Your task to perform on an android device: find photos in the google photos app Image 0: 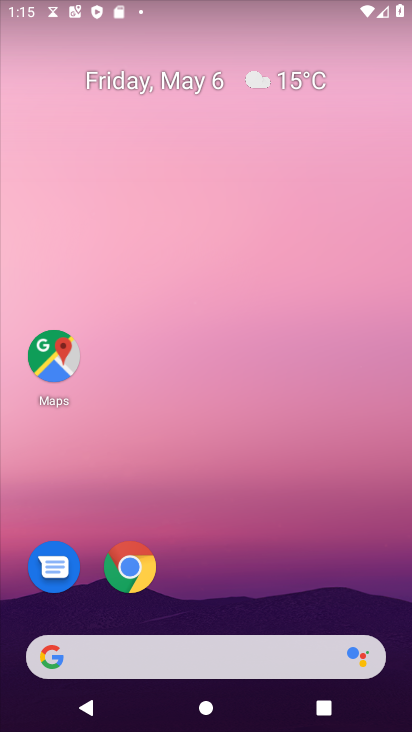
Step 0: drag from (292, 530) to (269, 199)
Your task to perform on an android device: find photos in the google photos app Image 1: 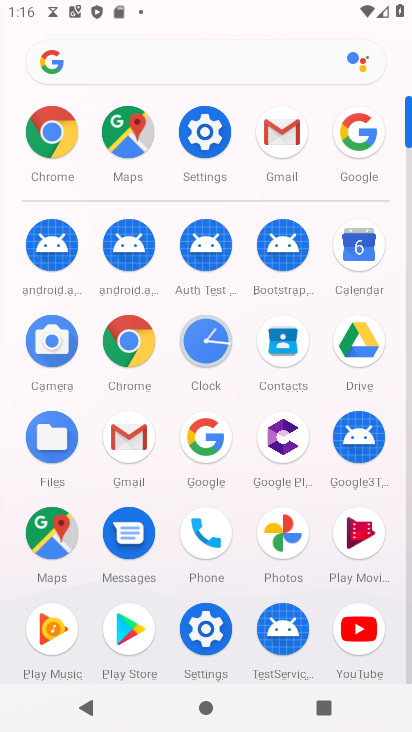
Step 1: drag from (395, 557) to (361, 272)
Your task to perform on an android device: find photos in the google photos app Image 2: 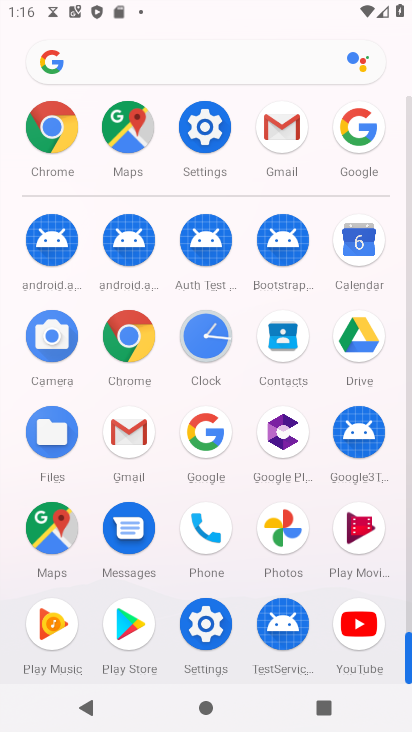
Step 2: click (284, 518)
Your task to perform on an android device: find photos in the google photos app Image 3: 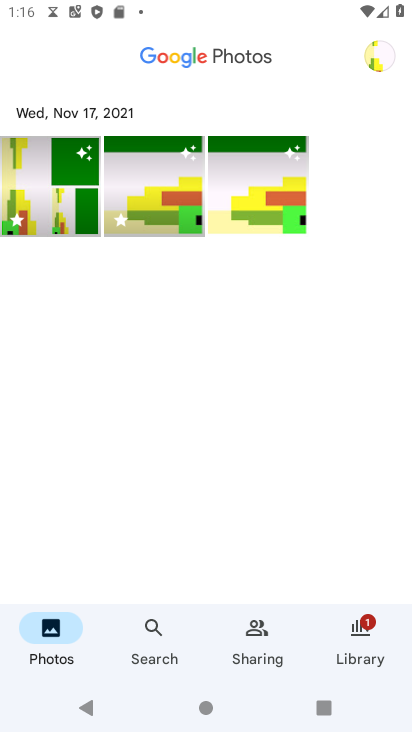
Step 3: click (58, 208)
Your task to perform on an android device: find photos in the google photos app Image 4: 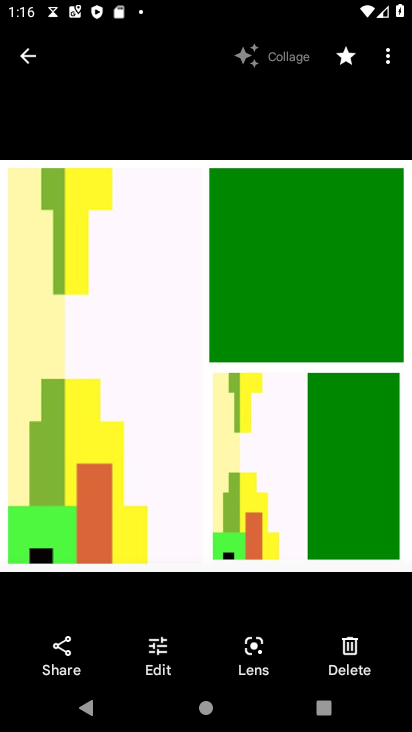
Step 4: task complete